Your task to perform on an android device: turn off notifications in google photos Image 0: 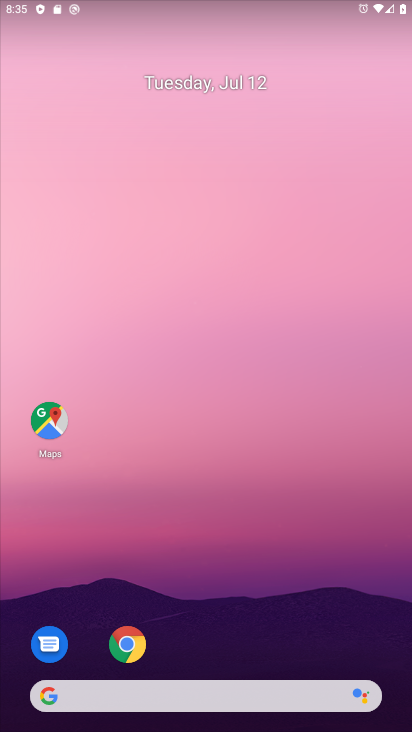
Step 0: drag from (26, 679) to (238, 244)
Your task to perform on an android device: turn off notifications in google photos Image 1: 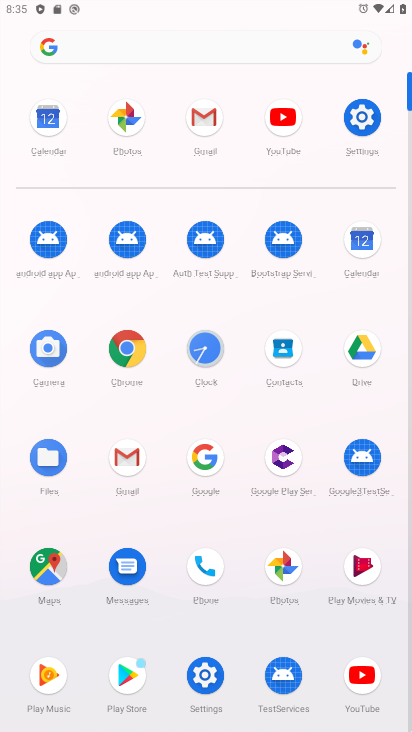
Step 1: click (286, 569)
Your task to perform on an android device: turn off notifications in google photos Image 2: 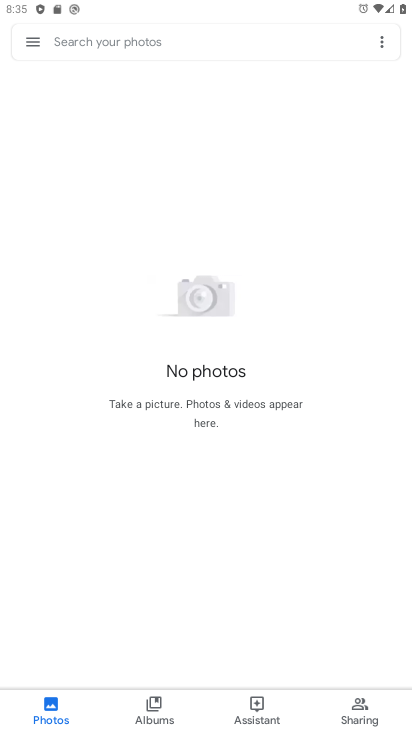
Step 2: click (35, 38)
Your task to perform on an android device: turn off notifications in google photos Image 3: 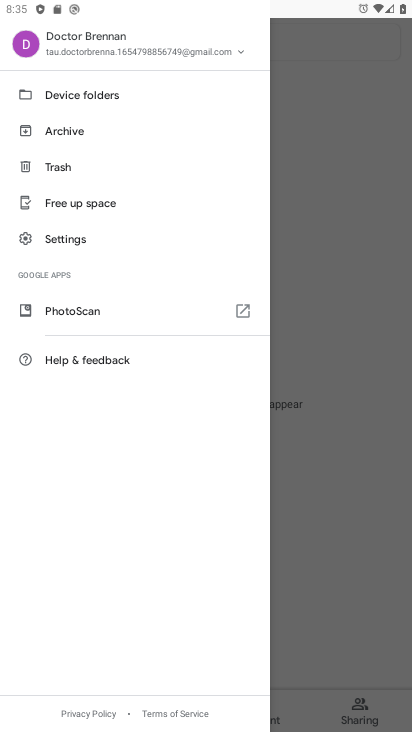
Step 3: click (76, 240)
Your task to perform on an android device: turn off notifications in google photos Image 4: 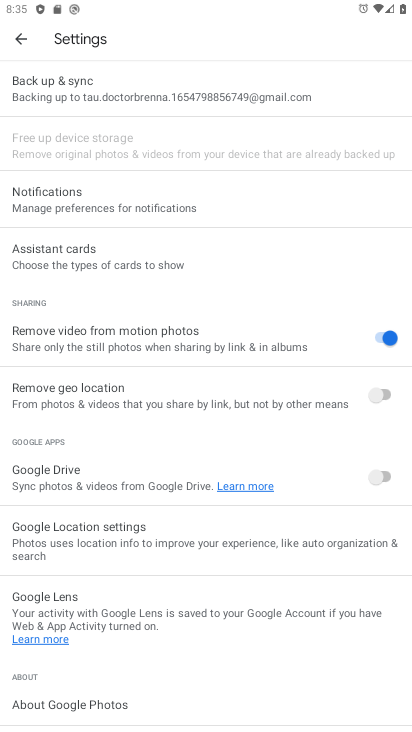
Step 4: click (65, 201)
Your task to perform on an android device: turn off notifications in google photos Image 5: 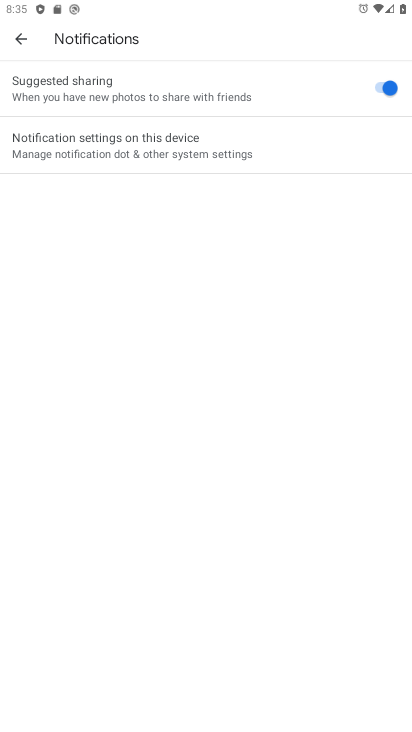
Step 5: click (139, 133)
Your task to perform on an android device: turn off notifications in google photos Image 6: 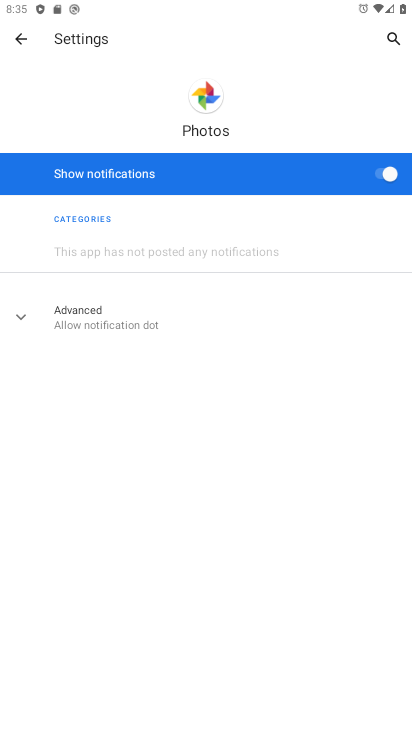
Step 6: click (387, 179)
Your task to perform on an android device: turn off notifications in google photos Image 7: 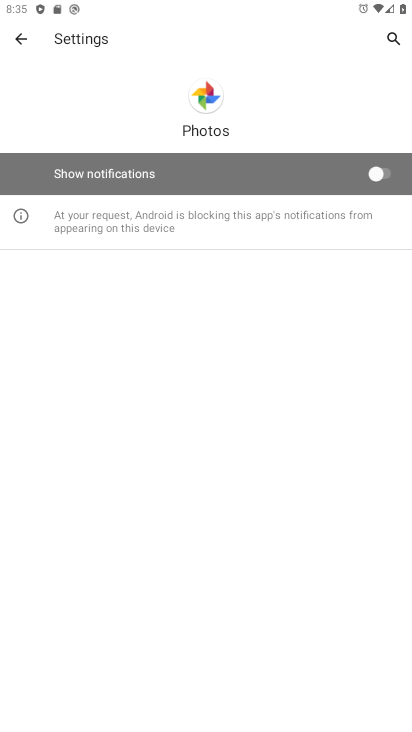
Step 7: task complete